Your task to perform on an android device: Open settings on Google Maps Image 0: 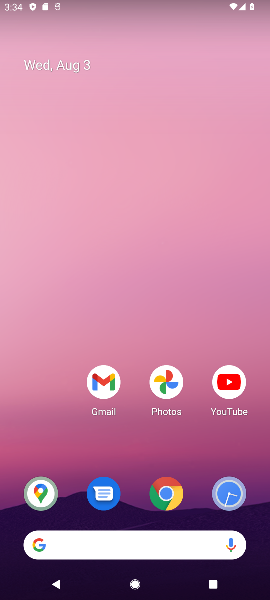
Step 0: drag from (51, 524) to (22, 0)
Your task to perform on an android device: Open settings on Google Maps Image 1: 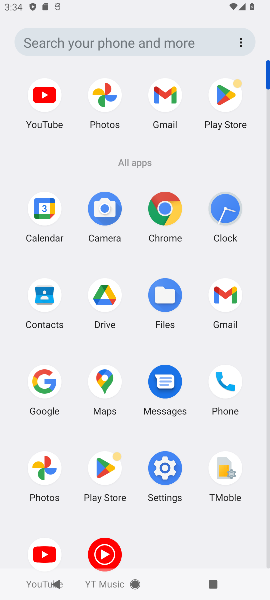
Step 1: click (105, 392)
Your task to perform on an android device: Open settings on Google Maps Image 2: 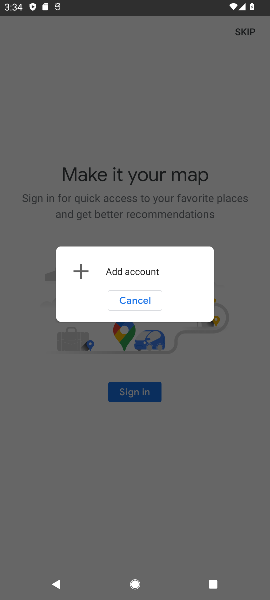
Step 2: task complete